Your task to perform on an android device: What's the weather? Image 0: 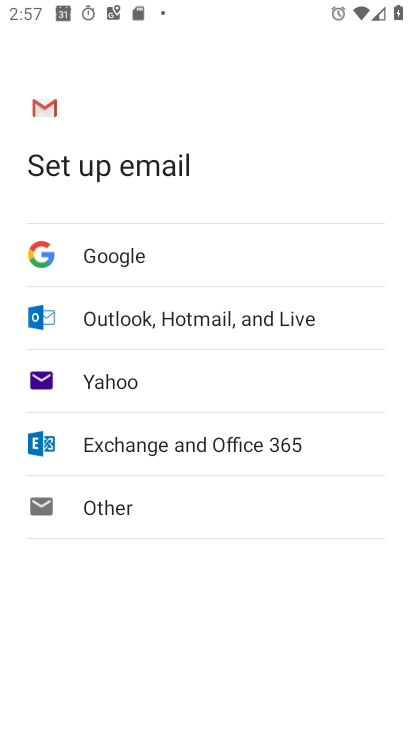
Step 0: press home button
Your task to perform on an android device: What's the weather? Image 1: 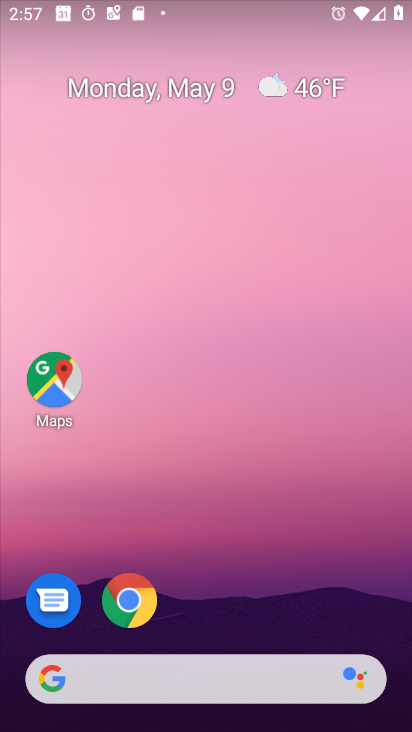
Step 1: click (320, 94)
Your task to perform on an android device: What's the weather? Image 2: 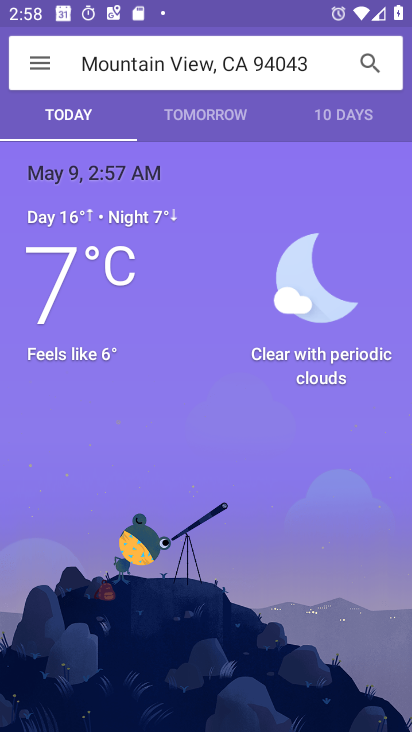
Step 2: task complete